Your task to perform on an android device: clear history in the chrome app Image 0: 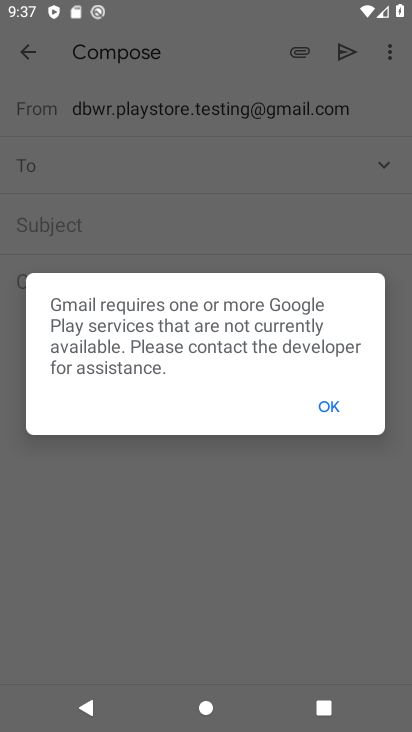
Step 0: press home button
Your task to perform on an android device: clear history in the chrome app Image 1: 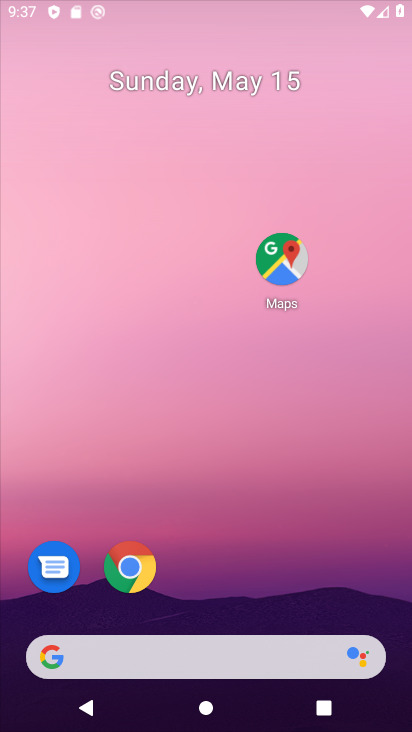
Step 1: click (111, 559)
Your task to perform on an android device: clear history in the chrome app Image 2: 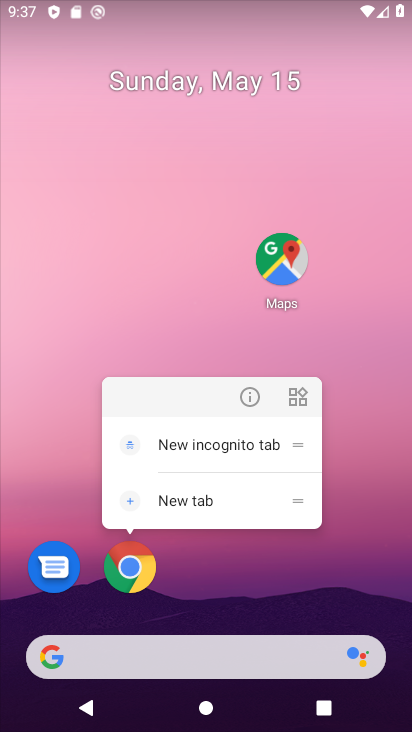
Step 2: click (133, 570)
Your task to perform on an android device: clear history in the chrome app Image 3: 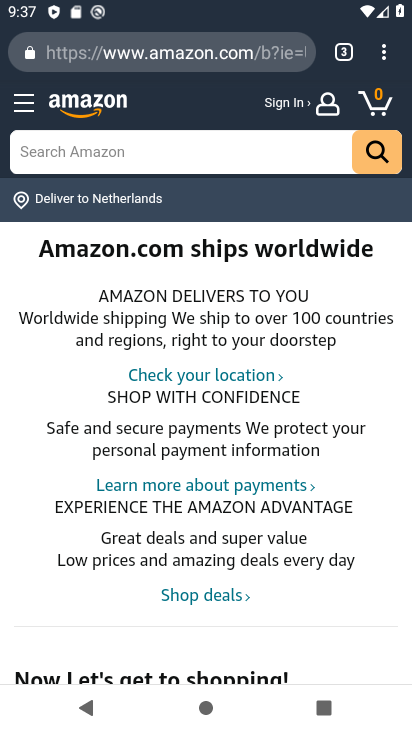
Step 3: click (377, 51)
Your task to perform on an android device: clear history in the chrome app Image 4: 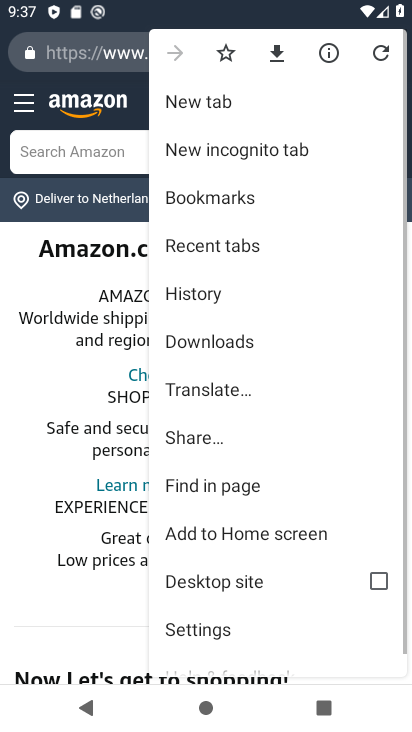
Step 4: click (232, 305)
Your task to perform on an android device: clear history in the chrome app Image 5: 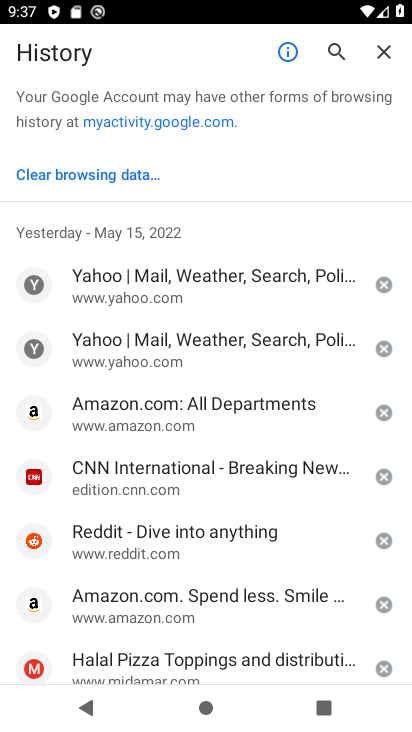
Step 5: click (138, 167)
Your task to perform on an android device: clear history in the chrome app Image 6: 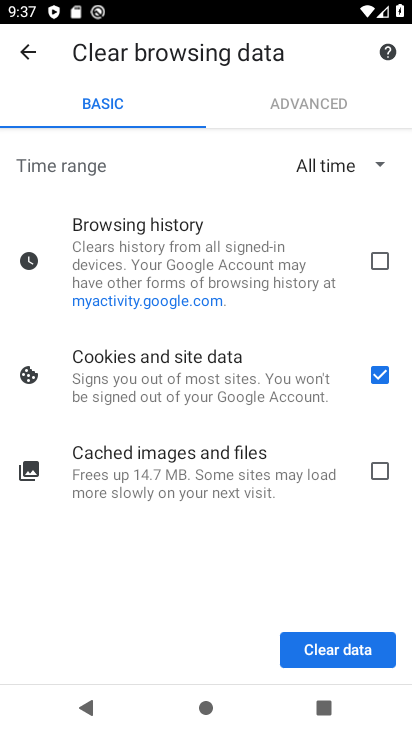
Step 6: click (378, 259)
Your task to perform on an android device: clear history in the chrome app Image 7: 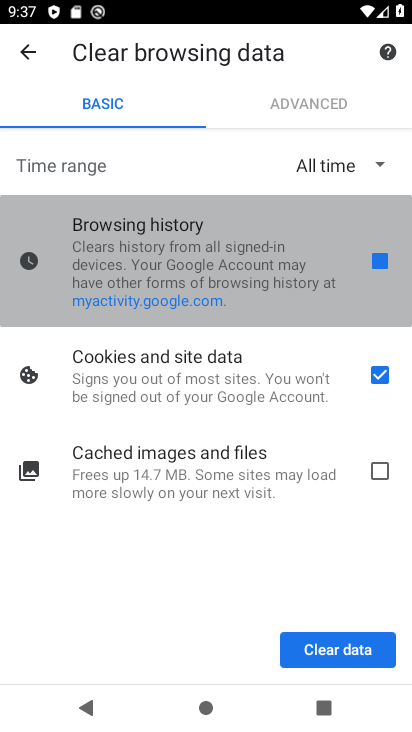
Step 7: click (381, 371)
Your task to perform on an android device: clear history in the chrome app Image 8: 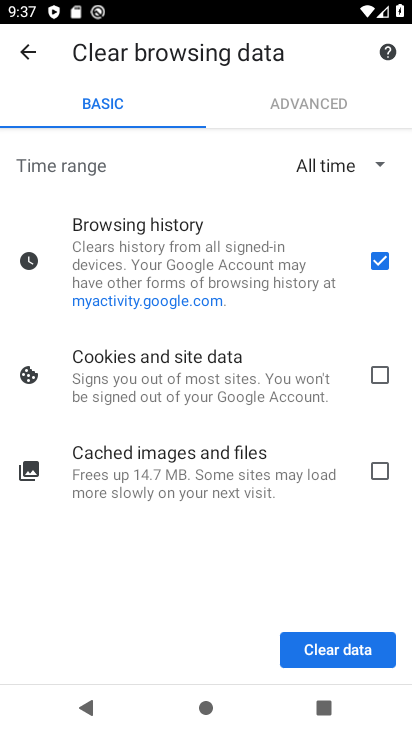
Step 8: click (326, 661)
Your task to perform on an android device: clear history in the chrome app Image 9: 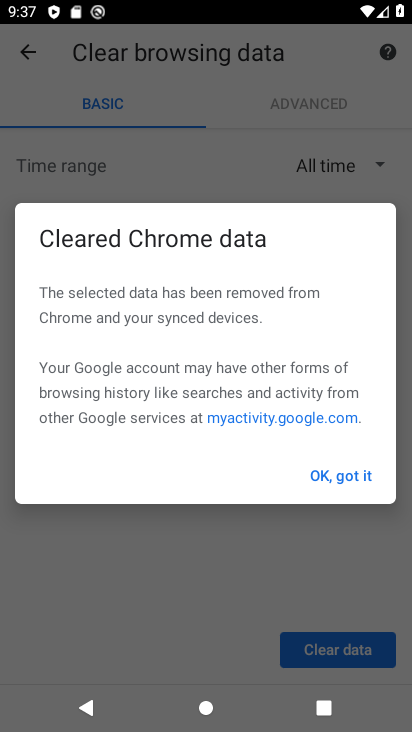
Step 9: click (342, 464)
Your task to perform on an android device: clear history in the chrome app Image 10: 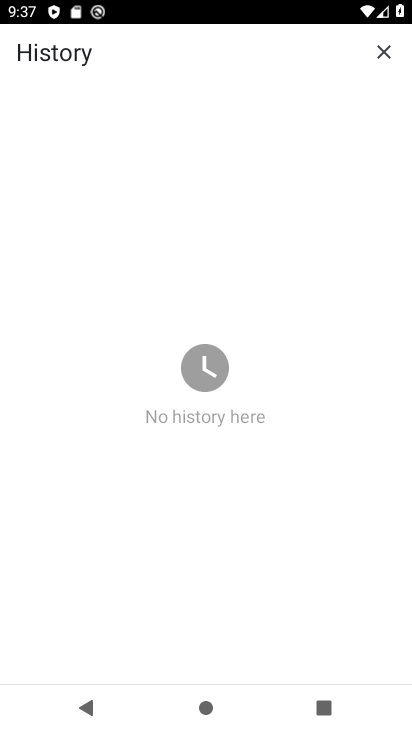
Step 10: task complete